Your task to perform on an android device: snooze an email in the gmail app Image 0: 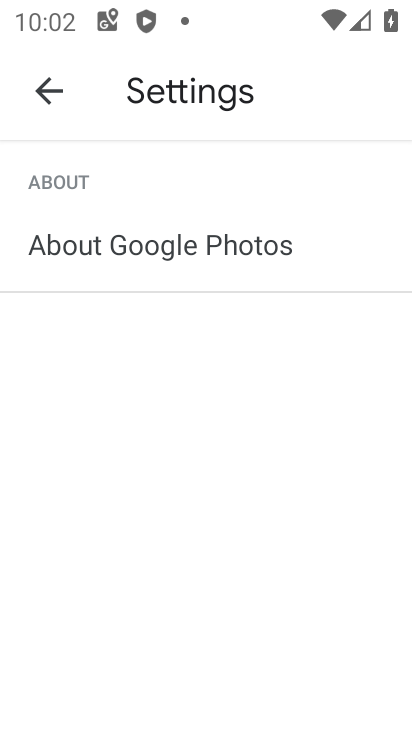
Step 0: click (271, 534)
Your task to perform on an android device: snooze an email in the gmail app Image 1: 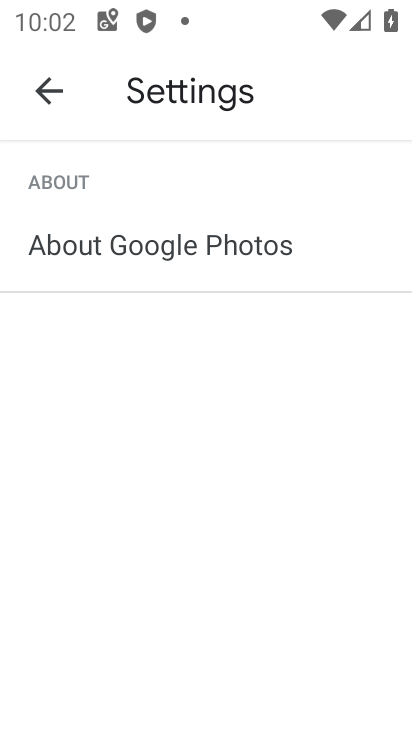
Step 1: press home button
Your task to perform on an android device: snooze an email in the gmail app Image 2: 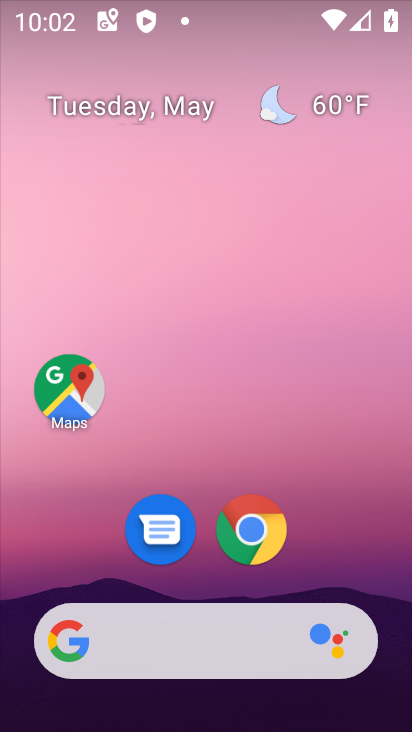
Step 2: drag from (226, 509) to (273, 348)
Your task to perform on an android device: snooze an email in the gmail app Image 3: 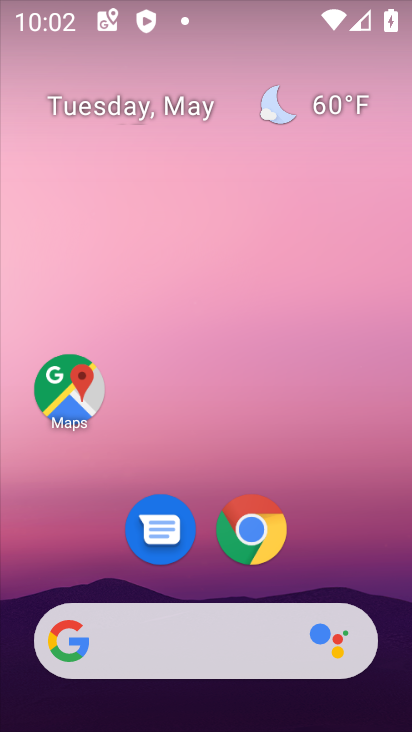
Step 3: drag from (175, 608) to (224, 221)
Your task to perform on an android device: snooze an email in the gmail app Image 4: 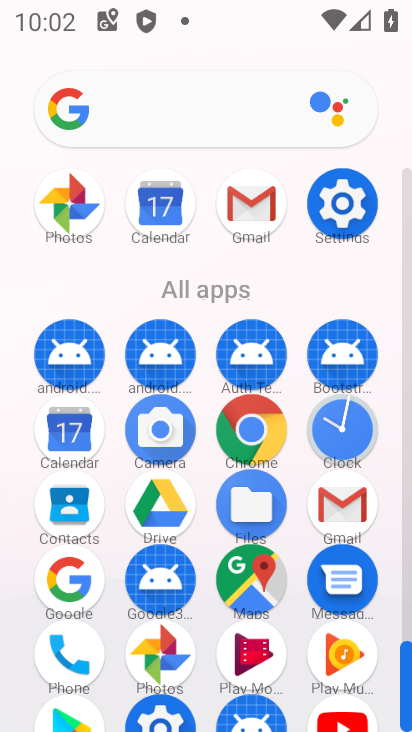
Step 4: click (252, 216)
Your task to perform on an android device: snooze an email in the gmail app Image 5: 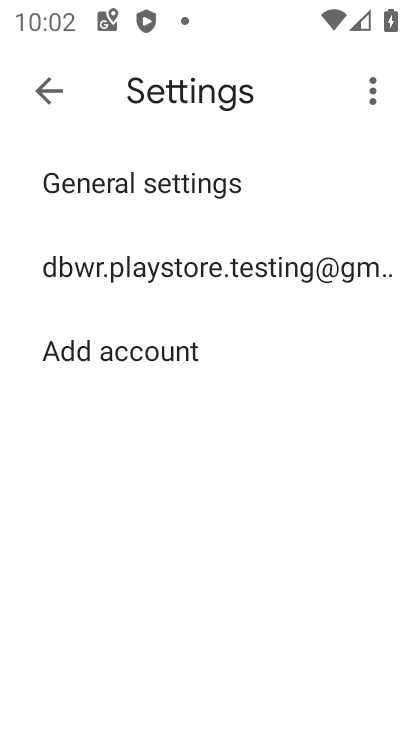
Step 5: click (56, 93)
Your task to perform on an android device: snooze an email in the gmail app Image 6: 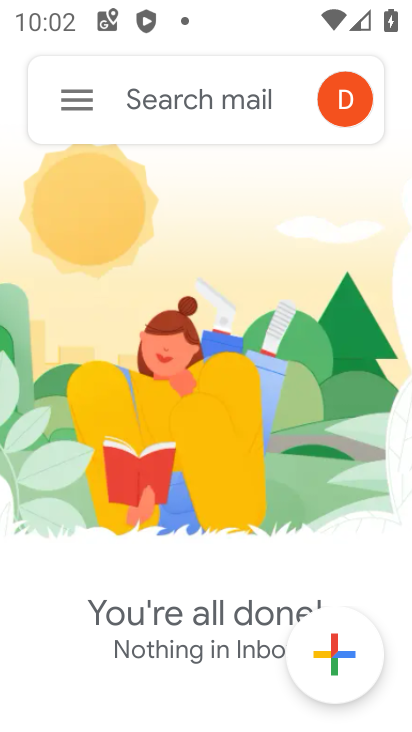
Step 6: task complete